Your task to perform on an android device: toggle notification dots Image 0: 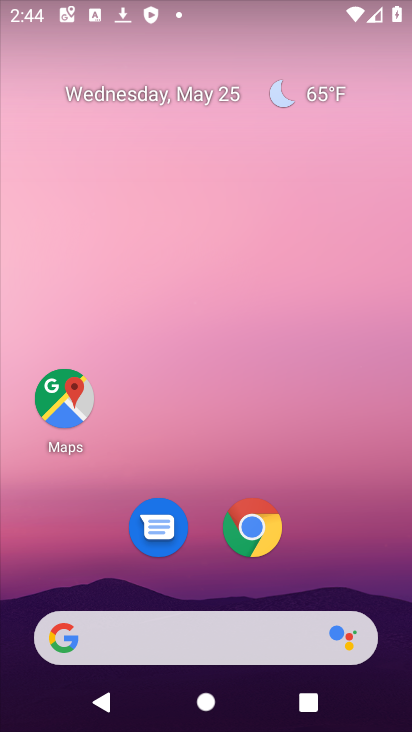
Step 0: drag from (265, 493) to (340, 1)
Your task to perform on an android device: toggle notification dots Image 1: 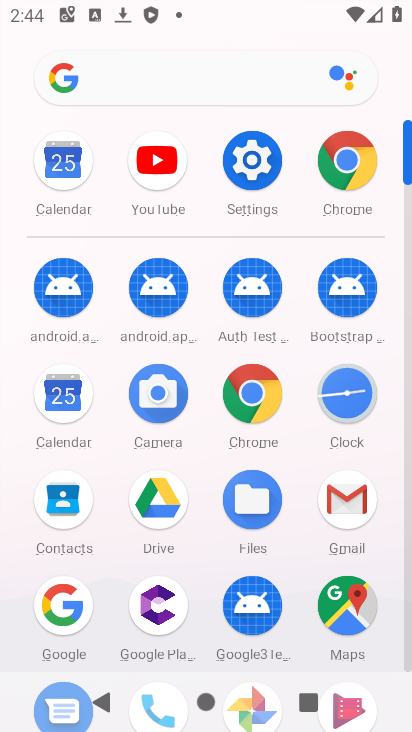
Step 1: click (265, 419)
Your task to perform on an android device: toggle notification dots Image 2: 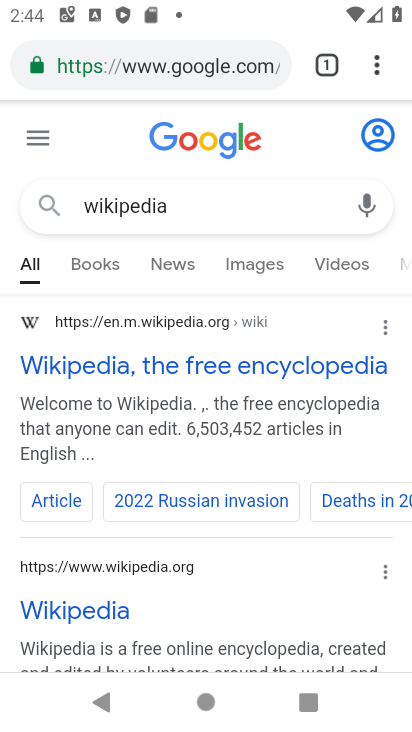
Step 2: press home button
Your task to perform on an android device: toggle notification dots Image 3: 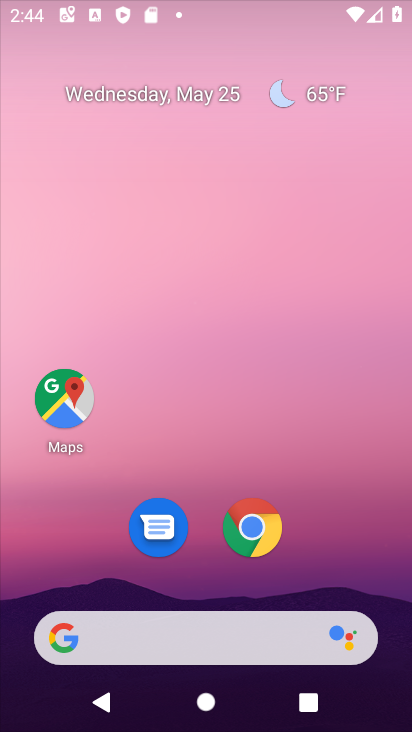
Step 3: drag from (251, 617) to (280, 29)
Your task to perform on an android device: toggle notification dots Image 4: 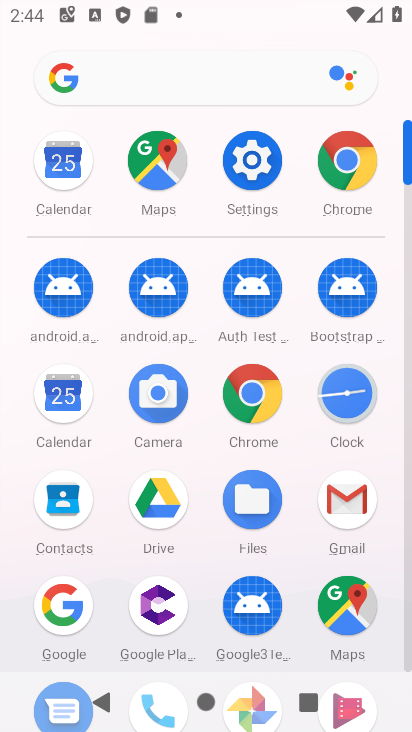
Step 4: click (259, 175)
Your task to perform on an android device: toggle notification dots Image 5: 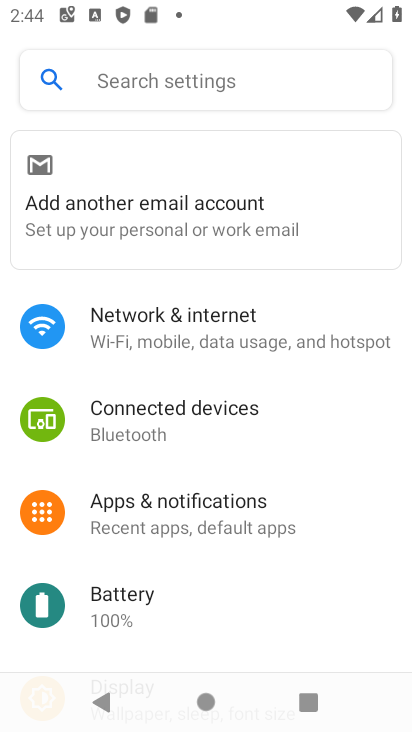
Step 5: click (111, 501)
Your task to perform on an android device: toggle notification dots Image 6: 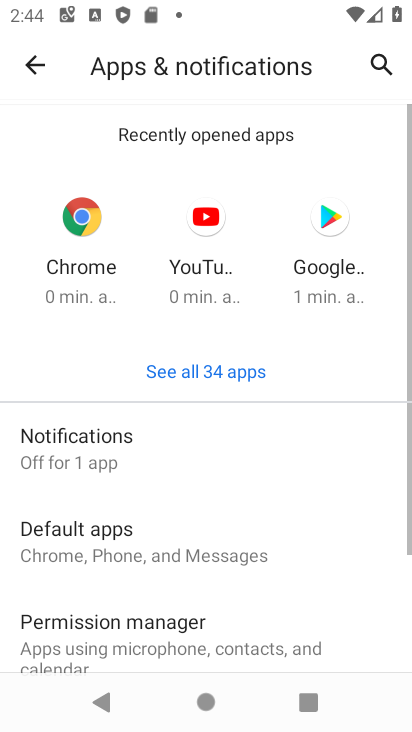
Step 6: drag from (249, 599) to (358, 30)
Your task to perform on an android device: toggle notification dots Image 7: 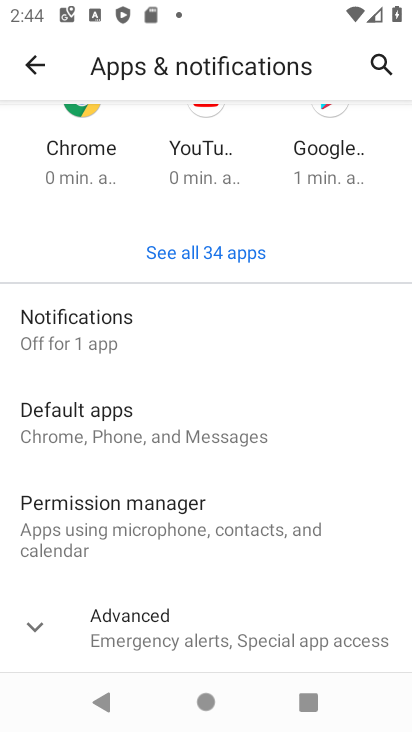
Step 7: click (143, 337)
Your task to perform on an android device: toggle notification dots Image 8: 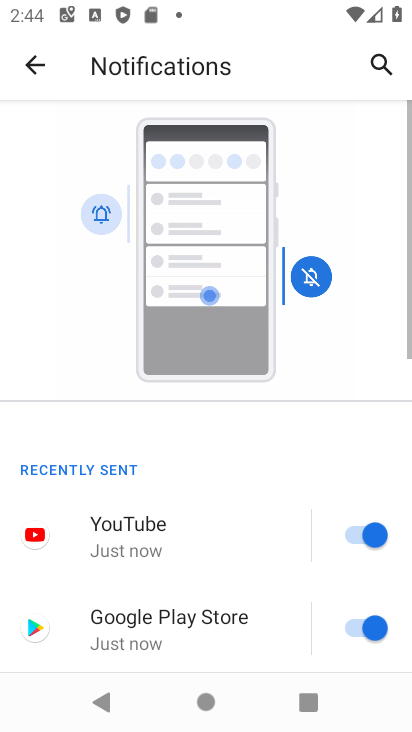
Step 8: drag from (243, 596) to (313, 150)
Your task to perform on an android device: toggle notification dots Image 9: 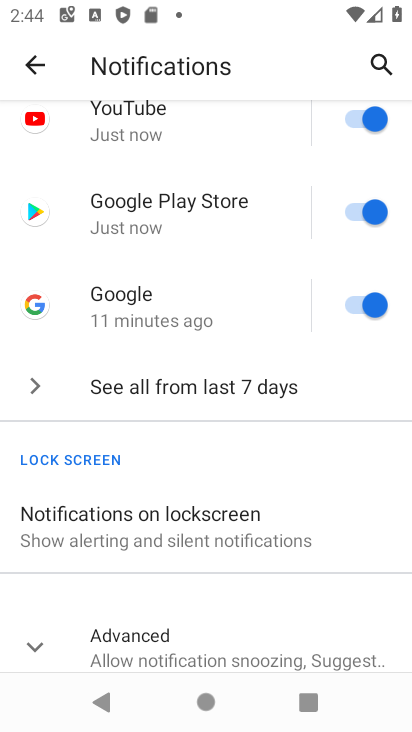
Step 9: click (200, 640)
Your task to perform on an android device: toggle notification dots Image 10: 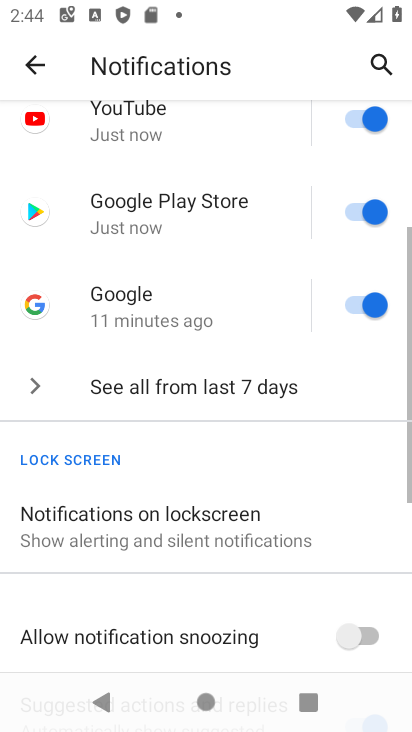
Step 10: drag from (280, 626) to (384, 62)
Your task to perform on an android device: toggle notification dots Image 11: 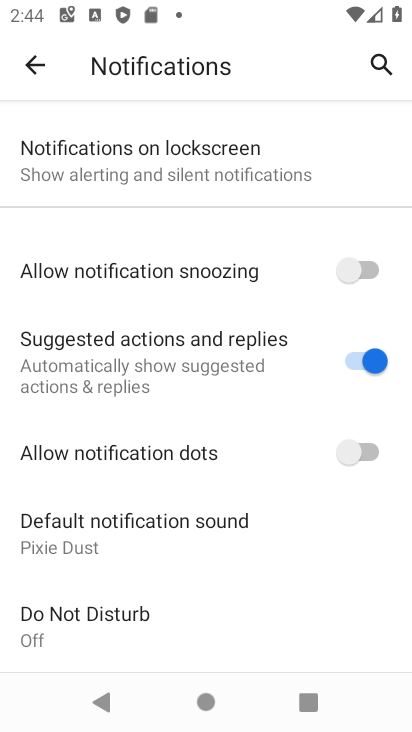
Step 11: click (350, 453)
Your task to perform on an android device: toggle notification dots Image 12: 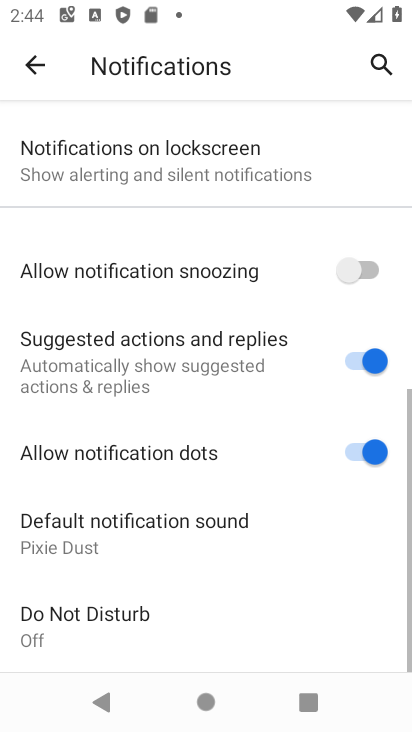
Step 12: task complete